Your task to perform on an android device: turn notification dots off Image 0: 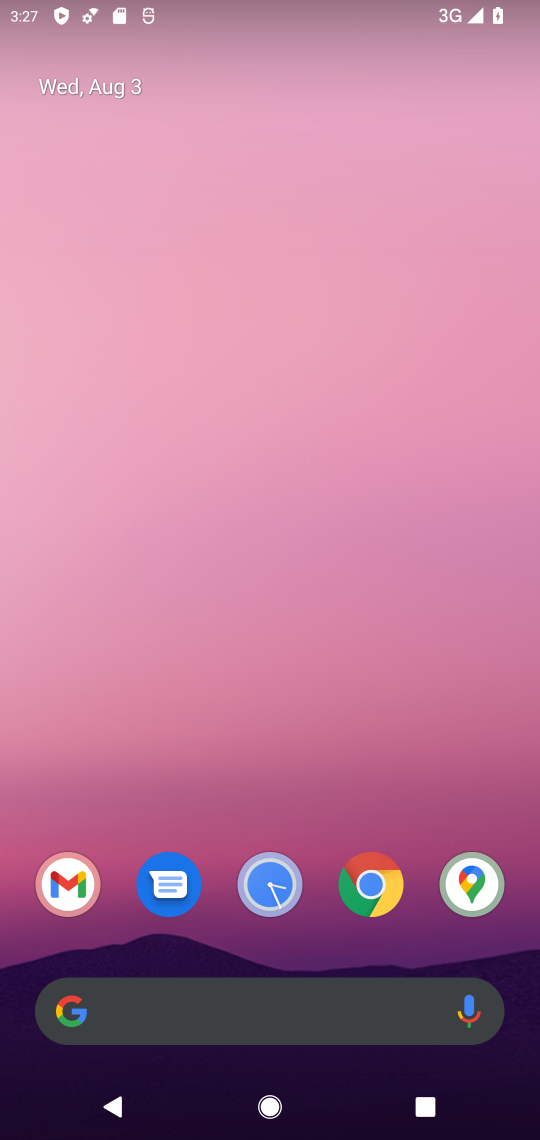
Step 0: drag from (323, 969) to (277, 34)
Your task to perform on an android device: turn notification dots off Image 1: 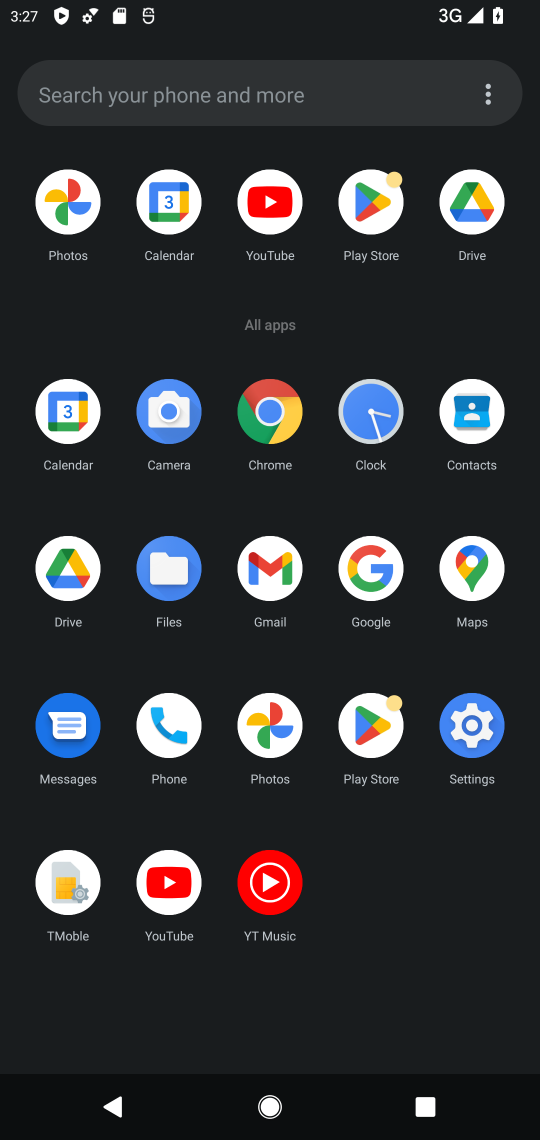
Step 1: click (473, 739)
Your task to perform on an android device: turn notification dots off Image 2: 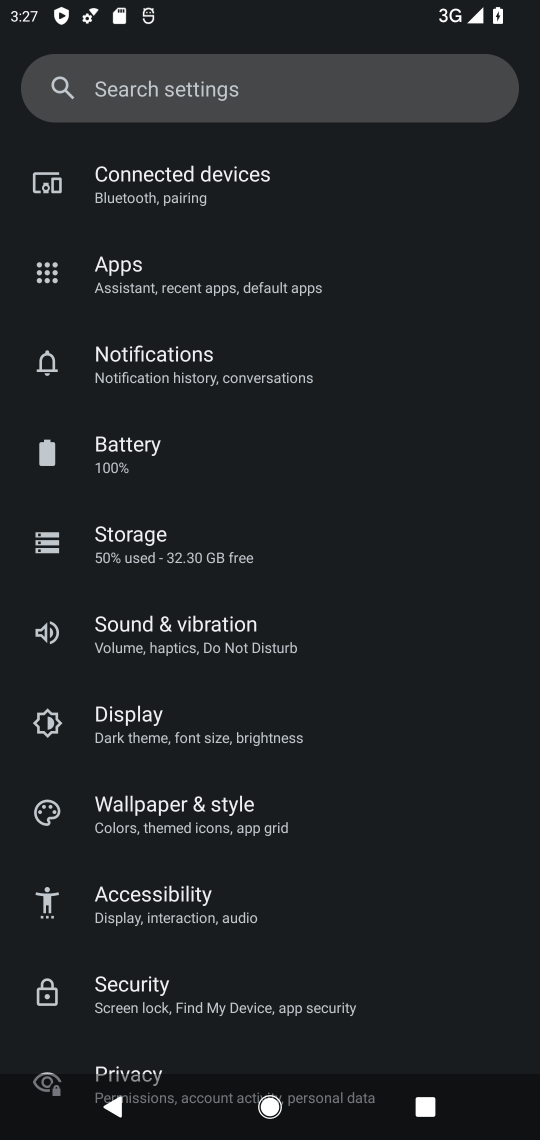
Step 2: click (178, 391)
Your task to perform on an android device: turn notification dots off Image 3: 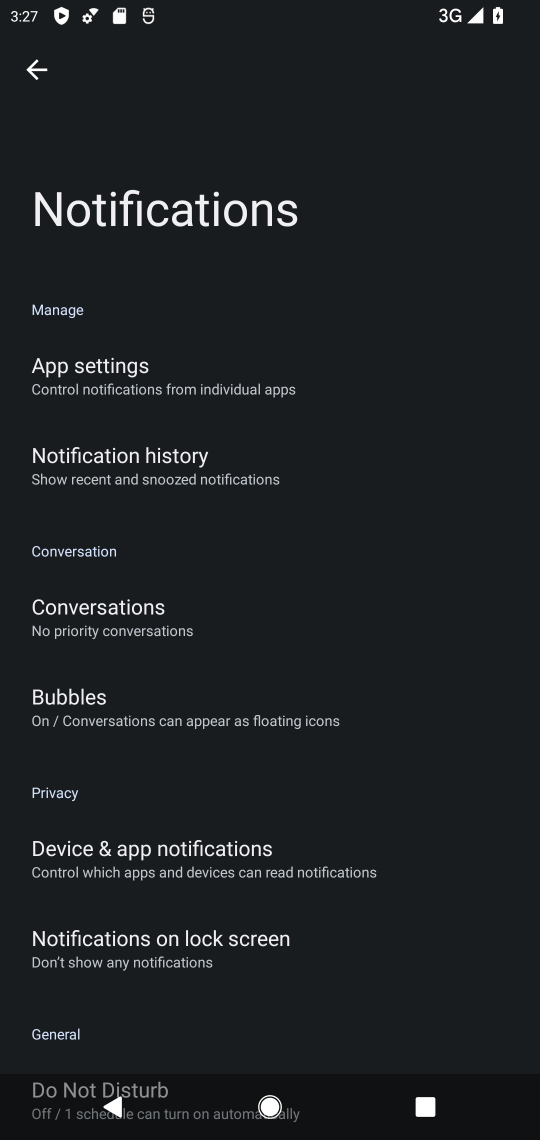
Step 3: task complete